Your task to perform on an android device: Search for dell xps on target, select the first entry, and add it to the cart. Image 0: 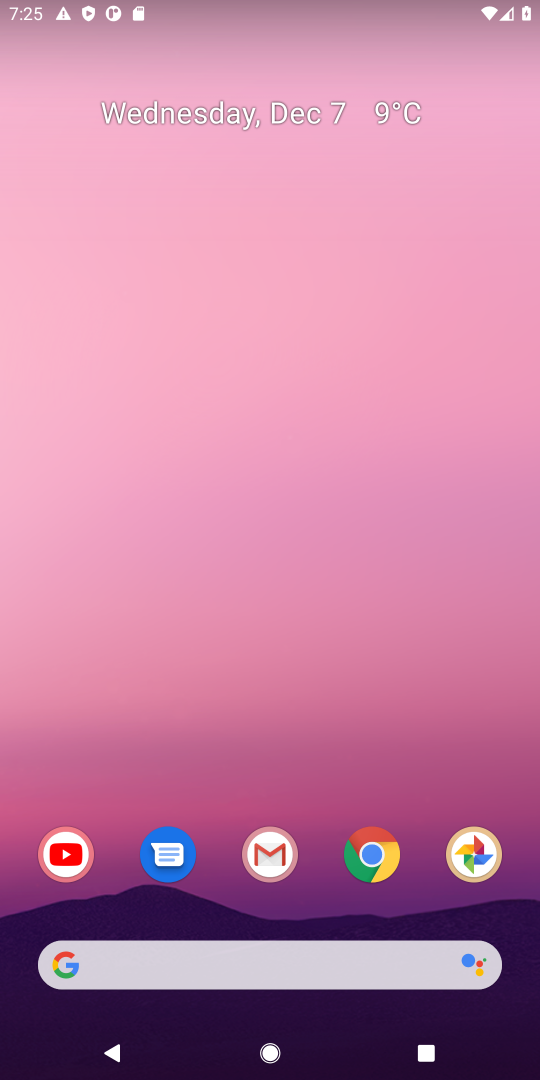
Step 0: click (296, 988)
Your task to perform on an android device: Search for dell xps on target, select the first entry, and add it to the cart. Image 1: 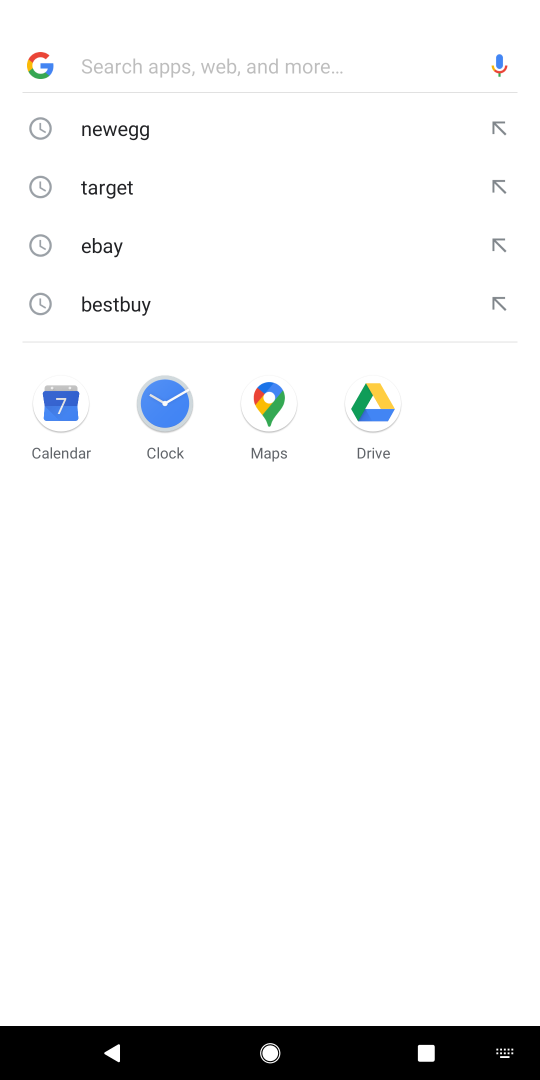
Step 1: type "target"
Your task to perform on an android device: Search for dell xps on target, select the first entry, and add it to the cart. Image 2: 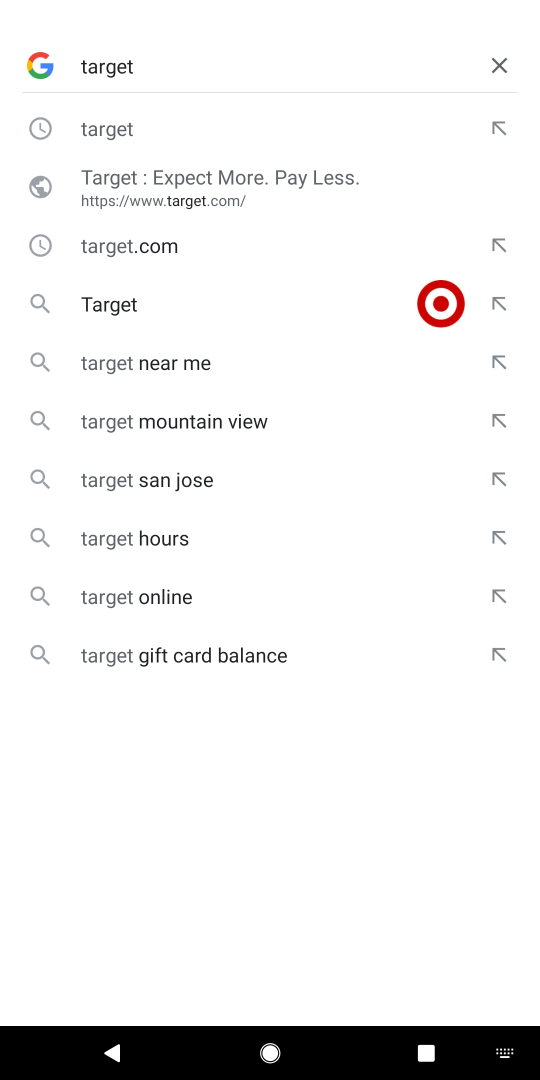
Step 2: click (194, 320)
Your task to perform on an android device: Search for dell xps on target, select the first entry, and add it to the cart. Image 3: 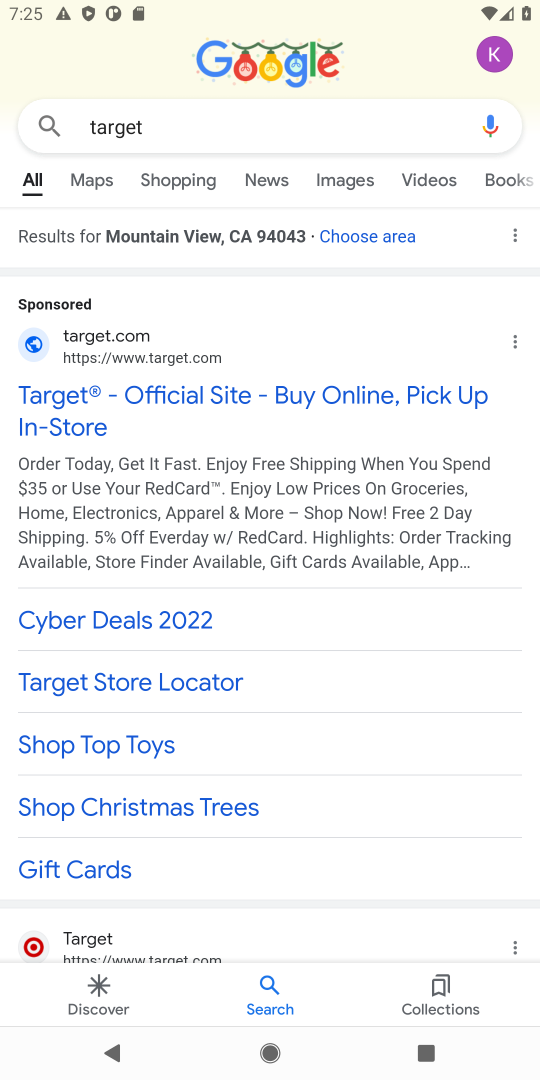
Step 3: click (43, 432)
Your task to perform on an android device: Search for dell xps on target, select the first entry, and add it to the cart. Image 4: 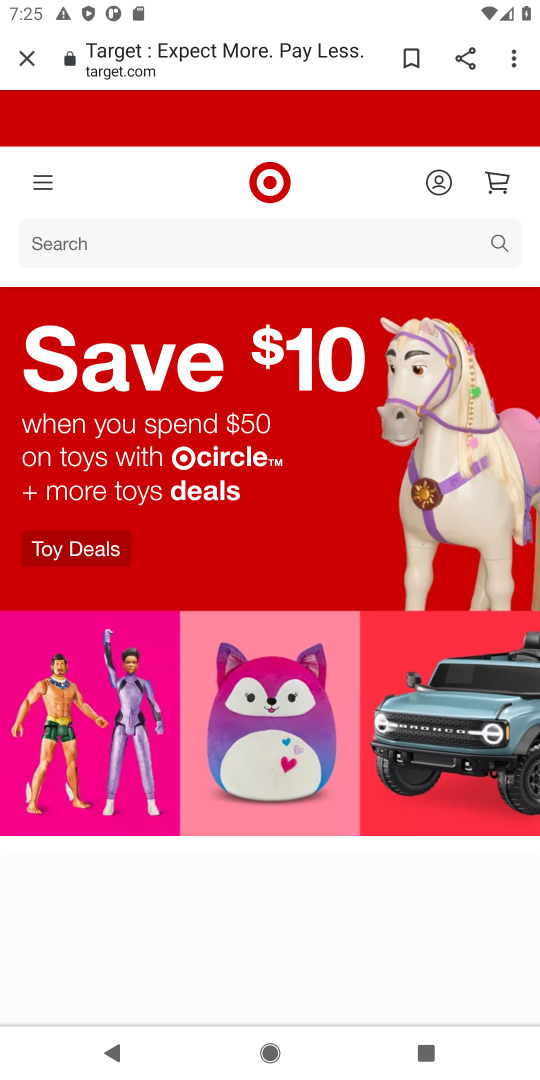
Step 4: click (236, 243)
Your task to perform on an android device: Search for dell xps on target, select the first entry, and add it to the cart. Image 5: 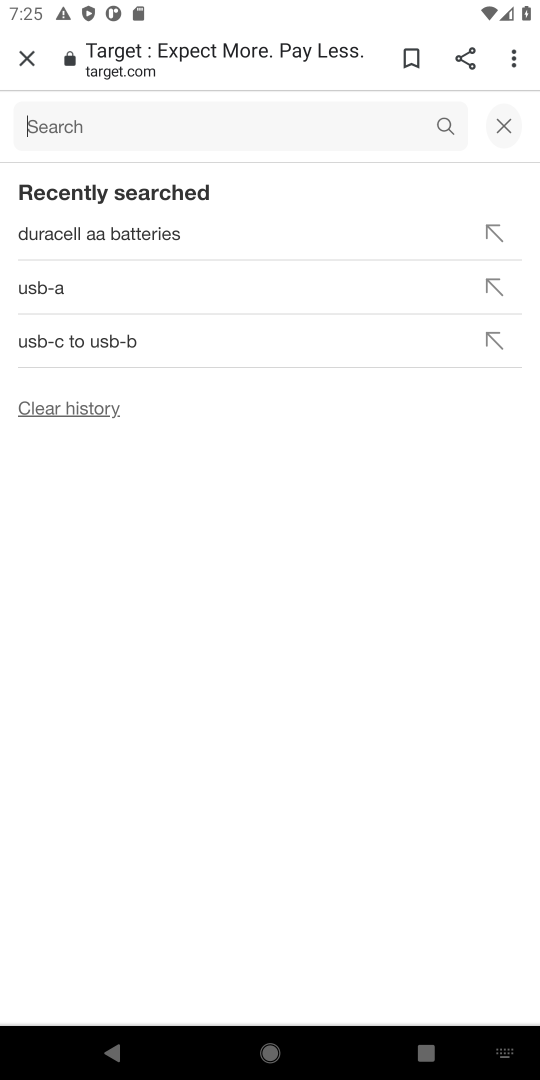
Step 5: type "dell xps"
Your task to perform on an android device: Search for dell xps on target, select the first entry, and add it to the cart. Image 6: 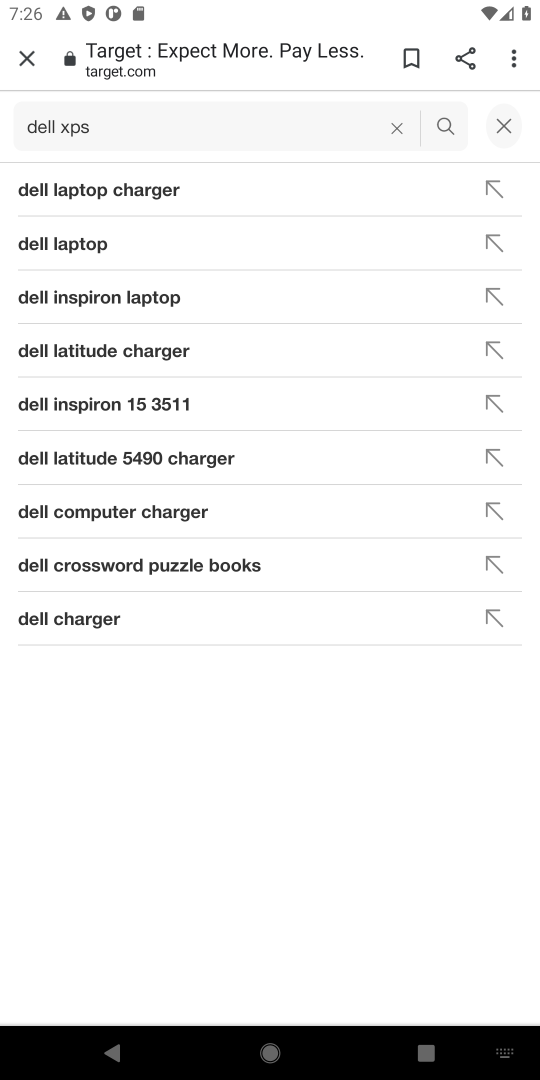
Step 6: click (439, 127)
Your task to perform on an android device: Search for dell xps on target, select the first entry, and add it to the cart. Image 7: 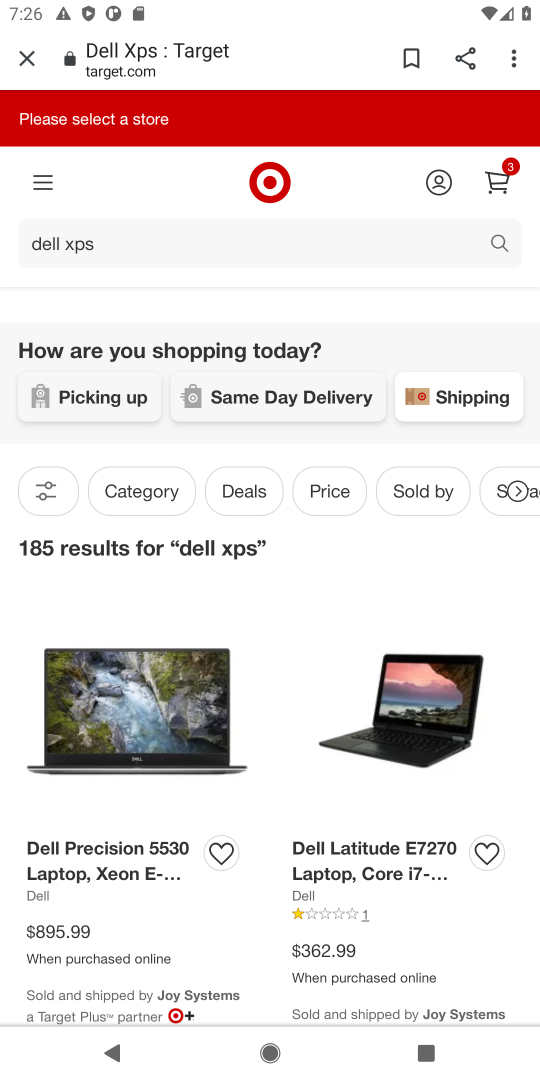
Step 7: click (221, 736)
Your task to perform on an android device: Search for dell xps on target, select the first entry, and add it to the cart. Image 8: 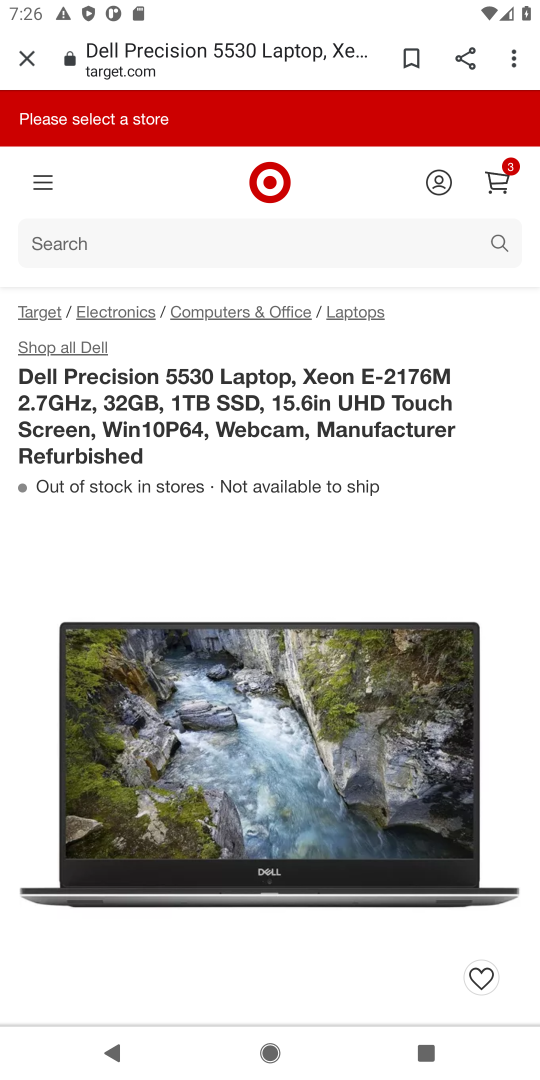
Step 8: task complete